Your task to perform on an android device: Clear the shopping cart on ebay.com. Image 0: 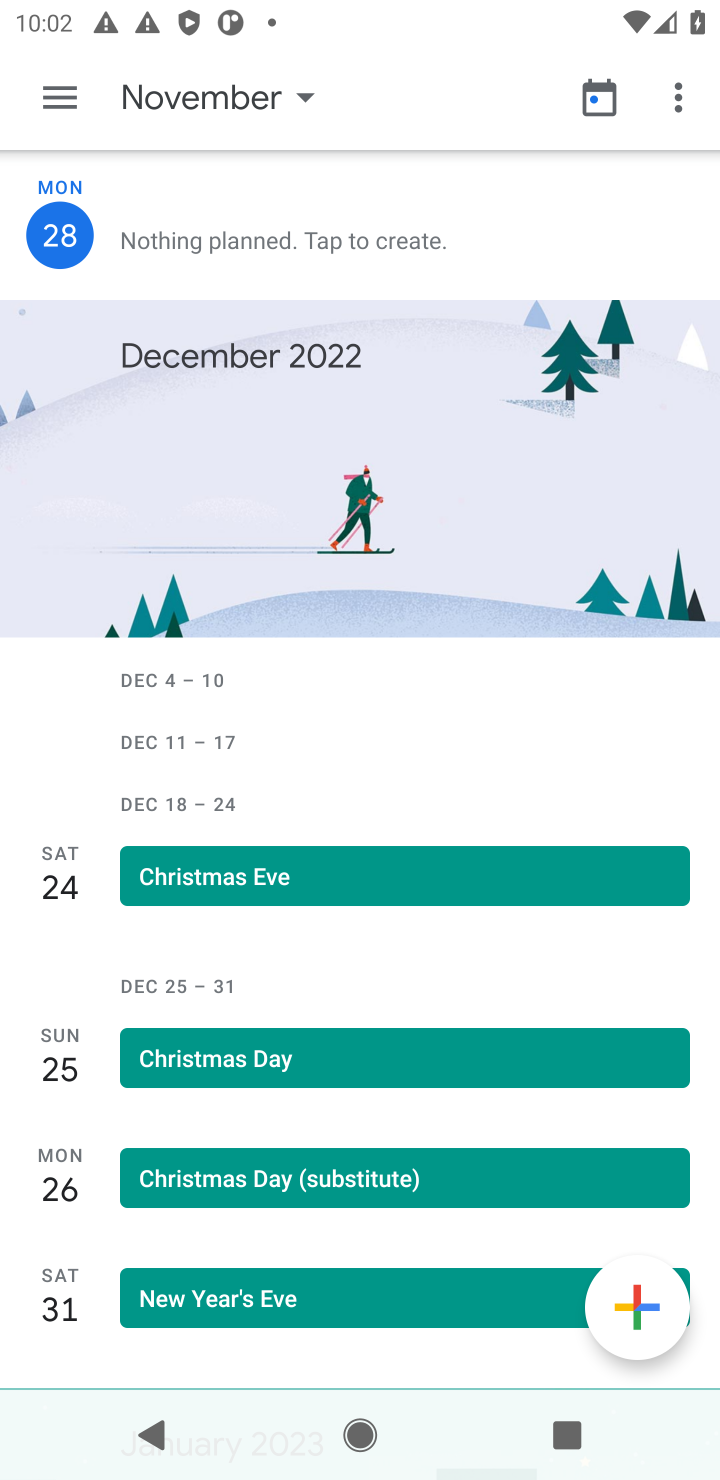
Step 0: press home button
Your task to perform on an android device: Clear the shopping cart on ebay.com. Image 1: 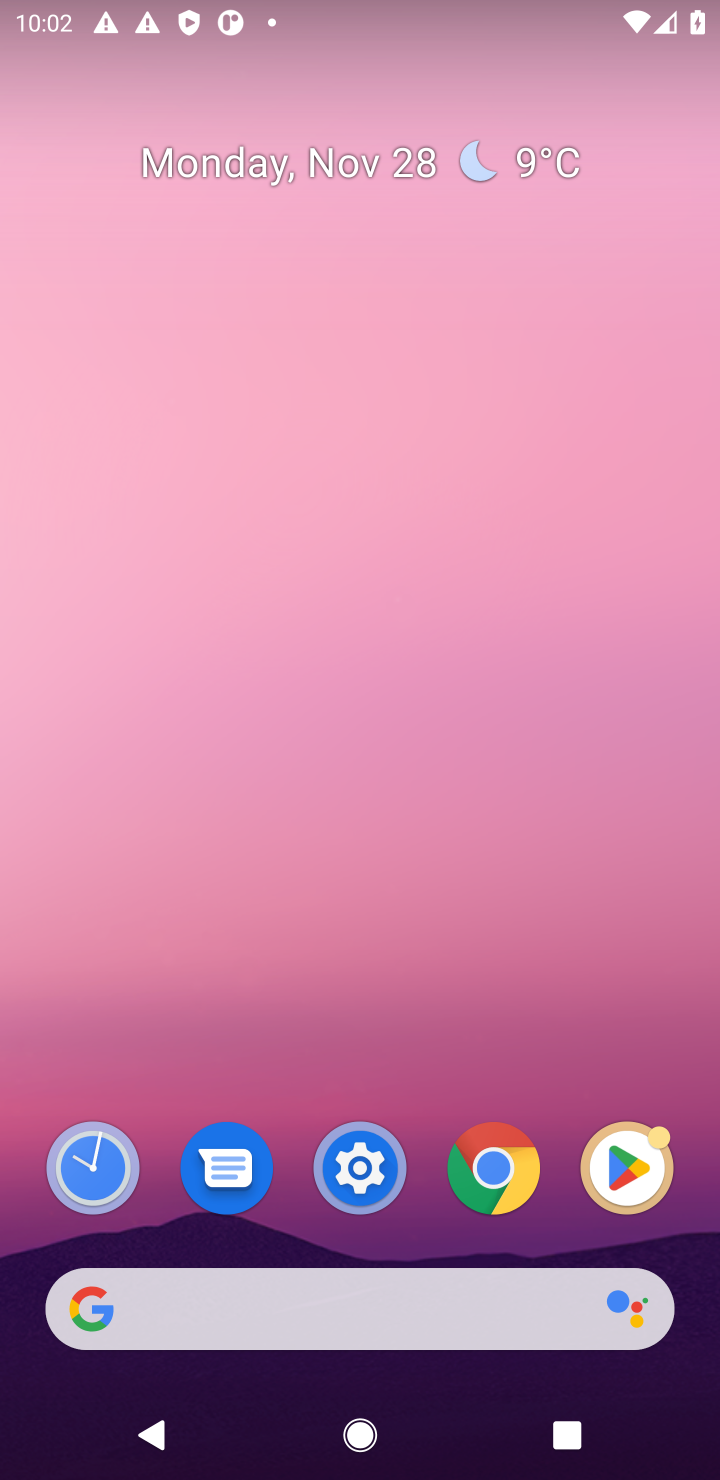
Step 1: click (307, 1312)
Your task to perform on an android device: Clear the shopping cart on ebay.com. Image 2: 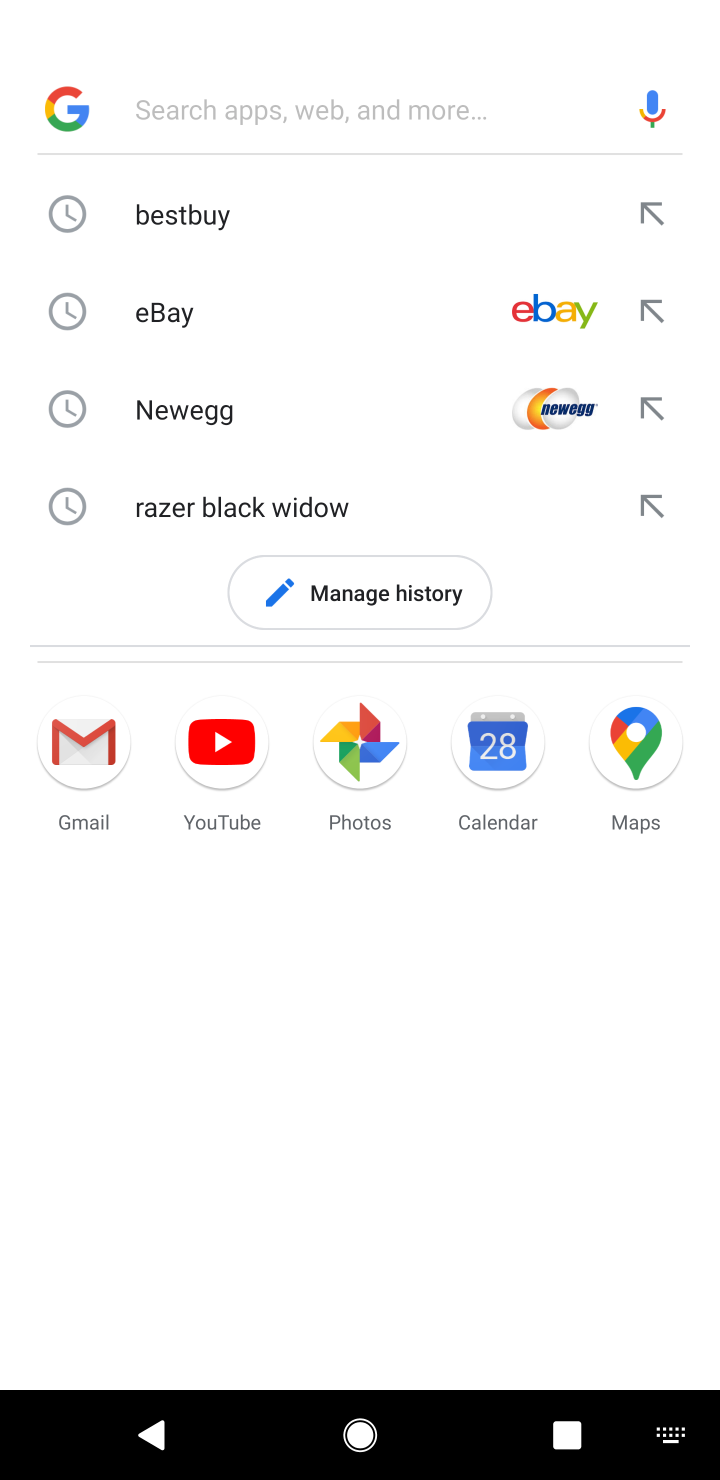
Step 2: type "ebay.com"
Your task to perform on an android device: Clear the shopping cart on ebay.com. Image 3: 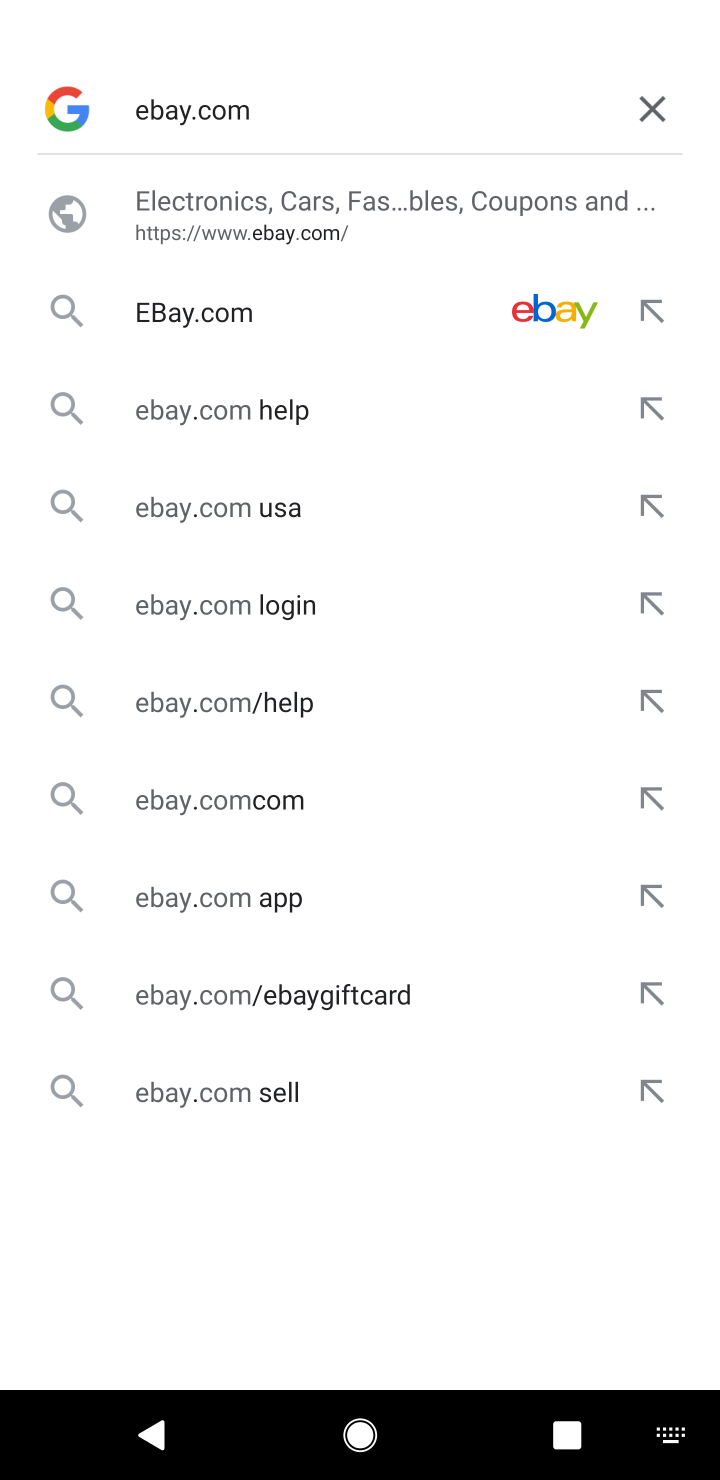
Step 3: click (345, 232)
Your task to perform on an android device: Clear the shopping cart on ebay.com. Image 4: 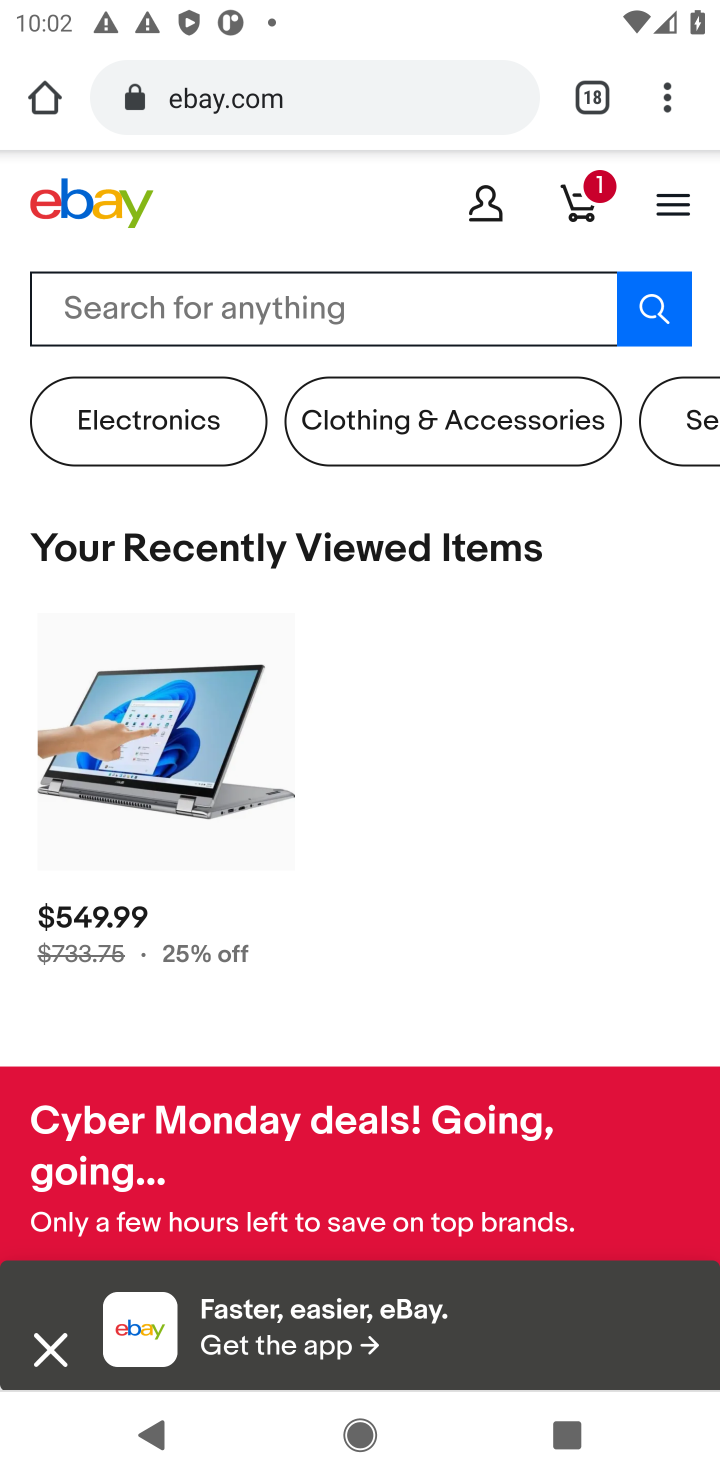
Step 4: click (232, 293)
Your task to perform on an android device: Clear the shopping cart on ebay.com. Image 5: 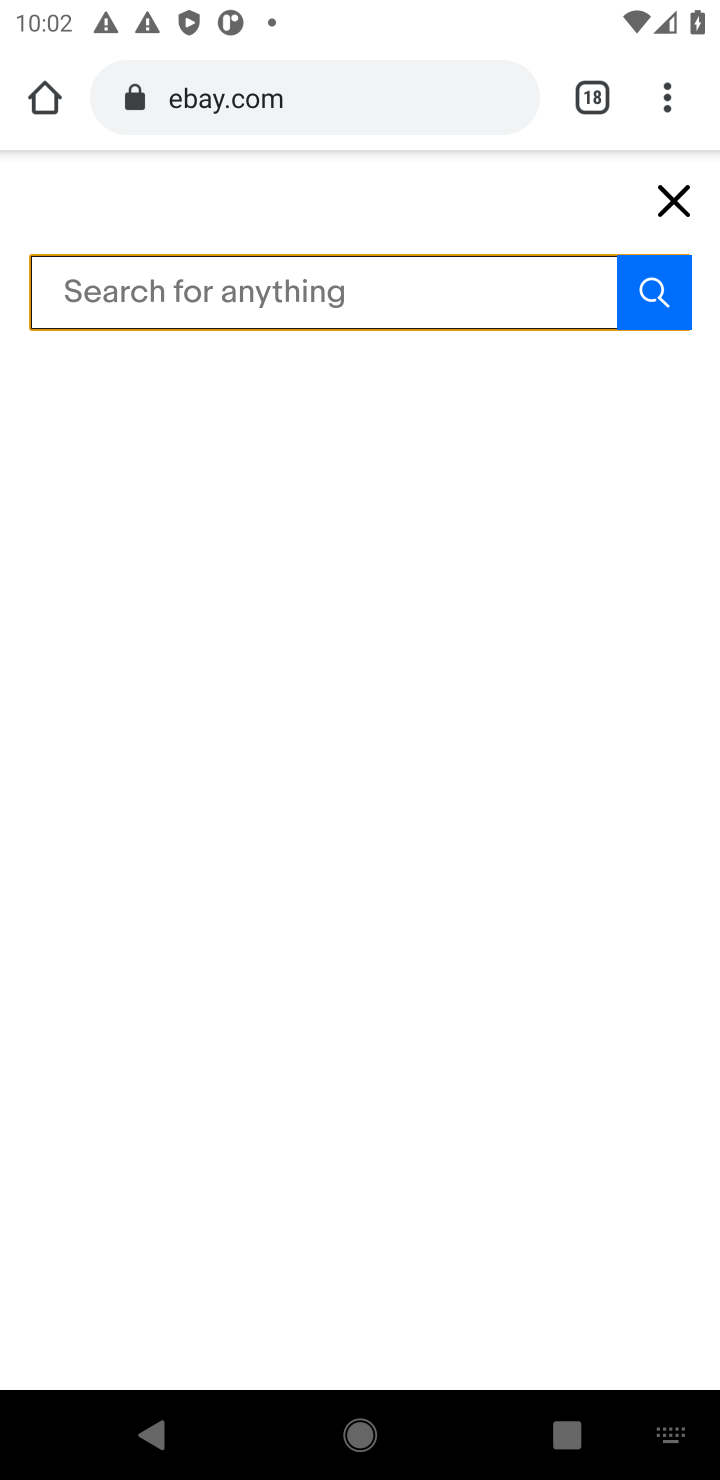
Step 5: click (654, 202)
Your task to perform on an android device: Clear the shopping cart on ebay.com. Image 6: 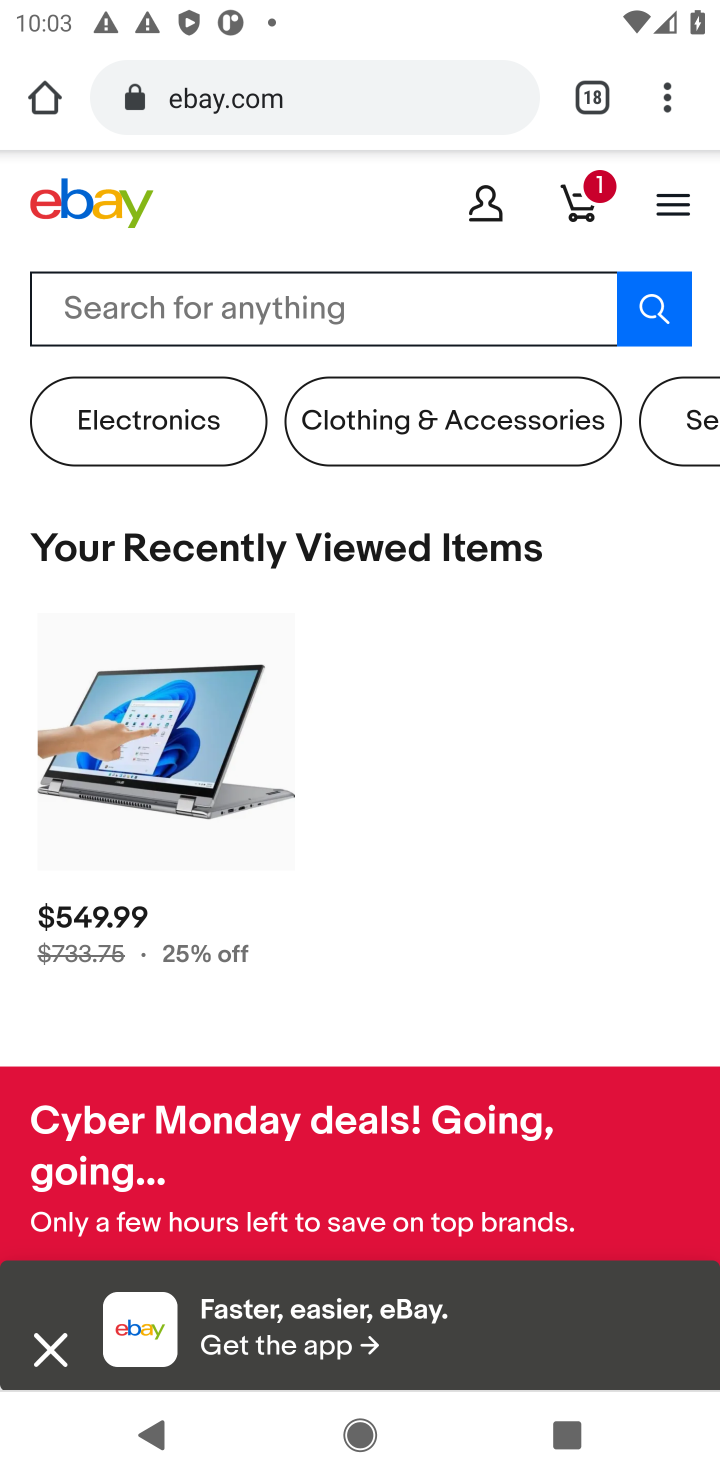
Step 6: task complete